Your task to perform on an android device: open app "Google Maps" Image 0: 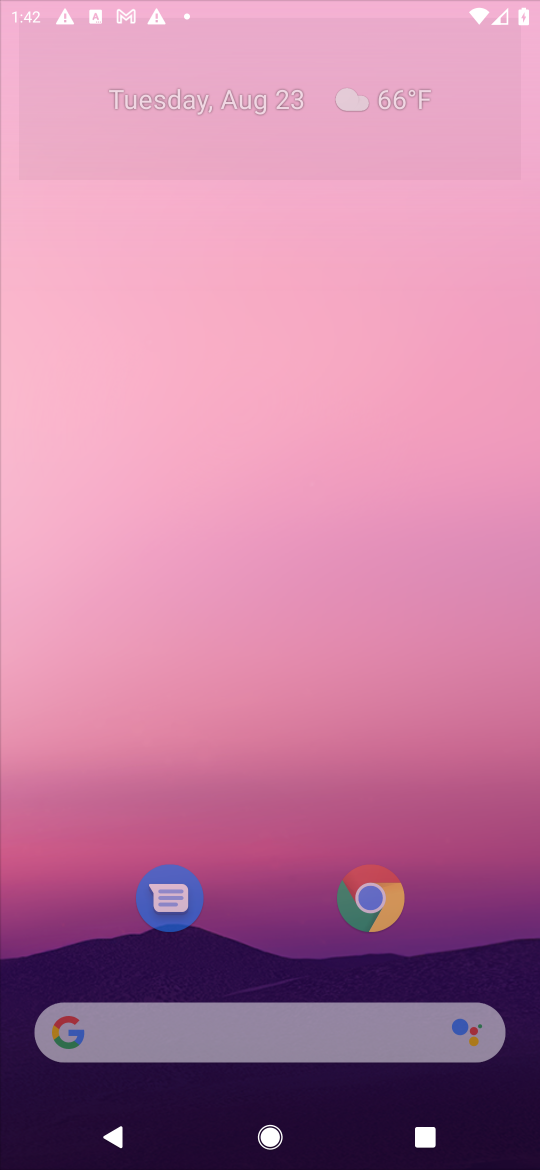
Step 0: press home button
Your task to perform on an android device: open app "Google Maps" Image 1: 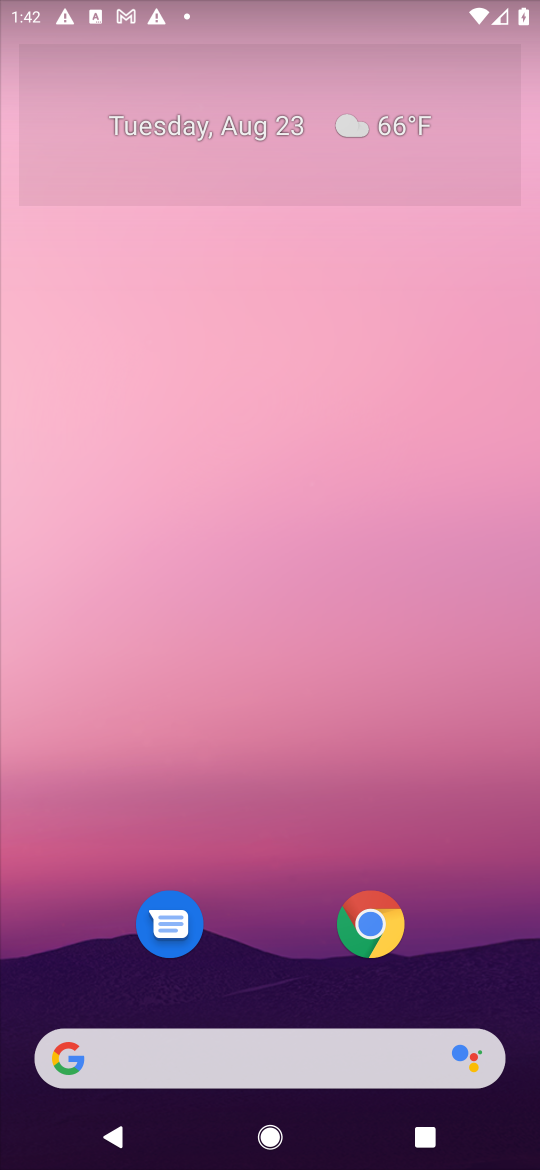
Step 1: drag from (469, 941) to (495, 78)
Your task to perform on an android device: open app "Google Maps" Image 2: 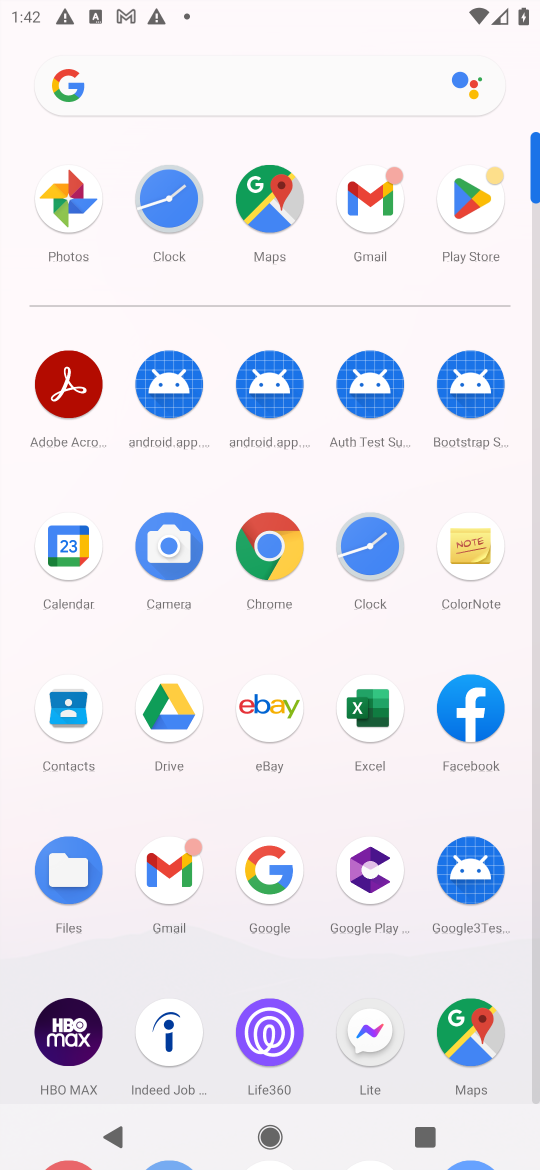
Step 2: click (461, 191)
Your task to perform on an android device: open app "Google Maps" Image 3: 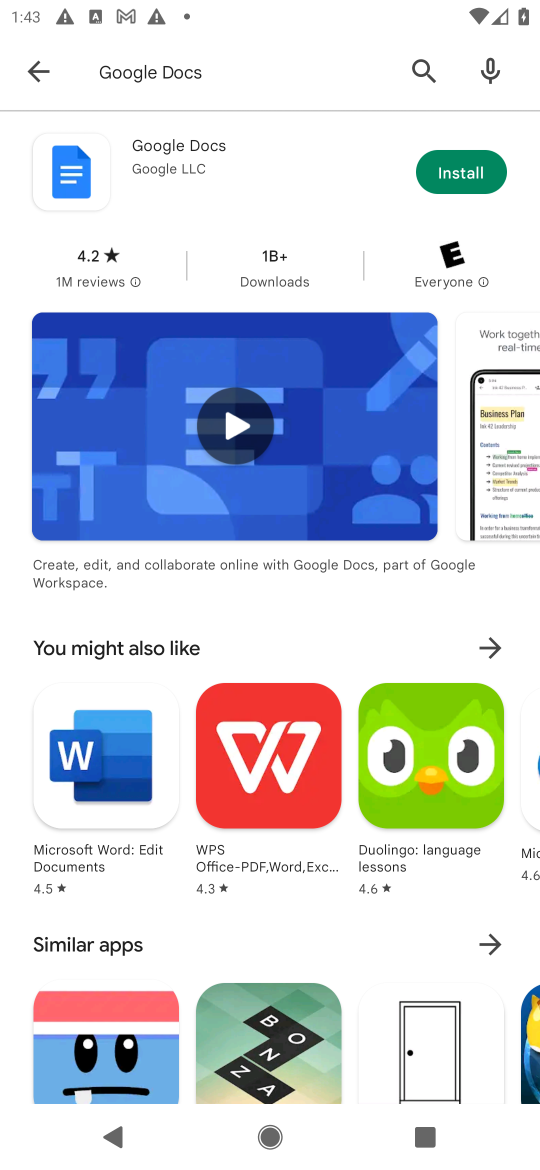
Step 3: press back button
Your task to perform on an android device: open app "Google Maps" Image 4: 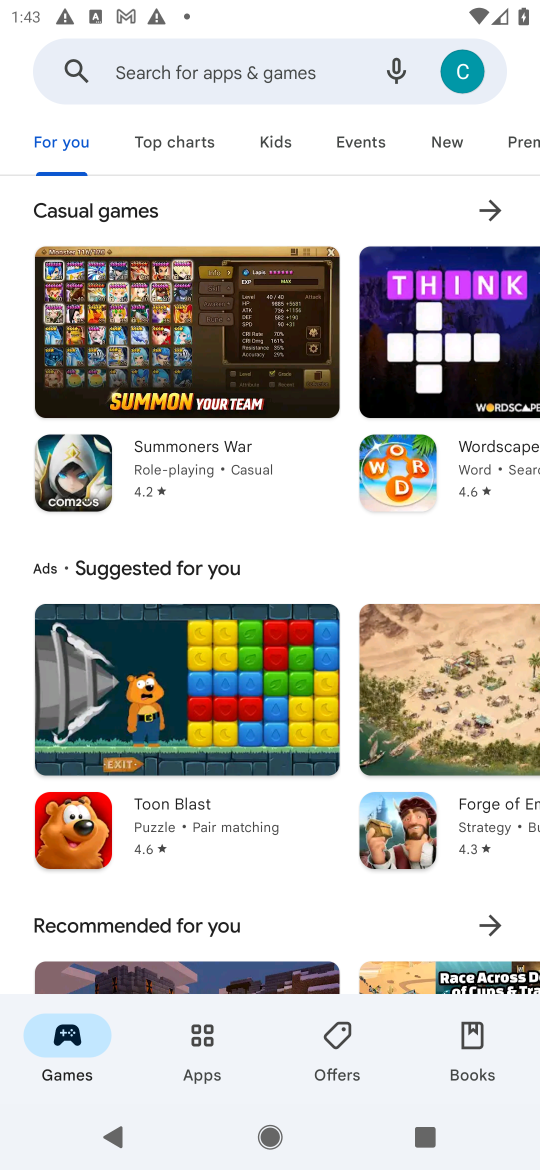
Step 4: click (270, 77)
Your task to perform on an android device: open app "Google Maps" Image 5: 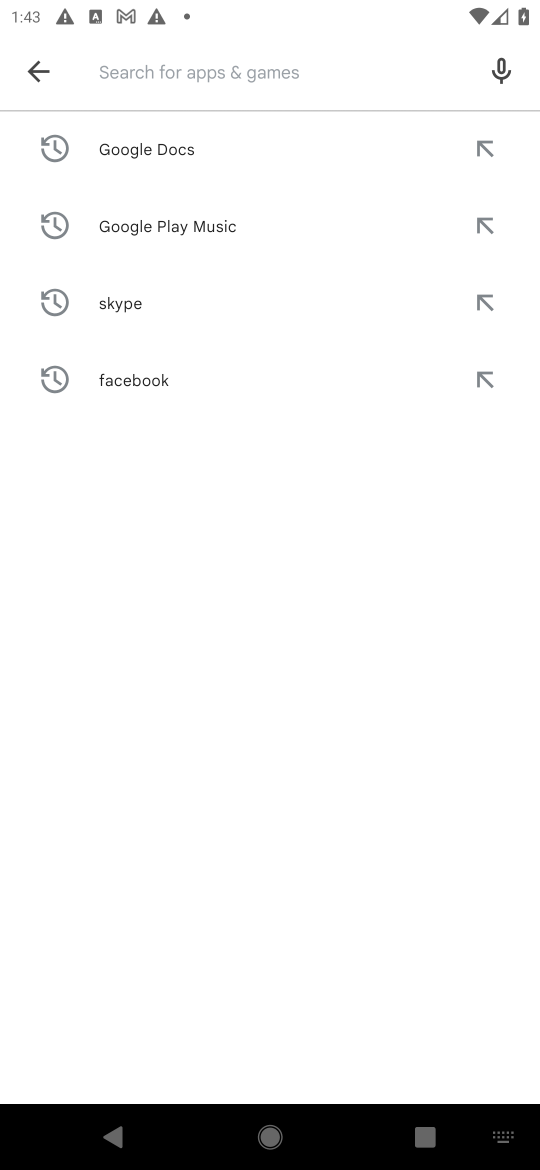
Step 5: press enter
Your task to perform on an android device: open app "Google Maps" Image 6: 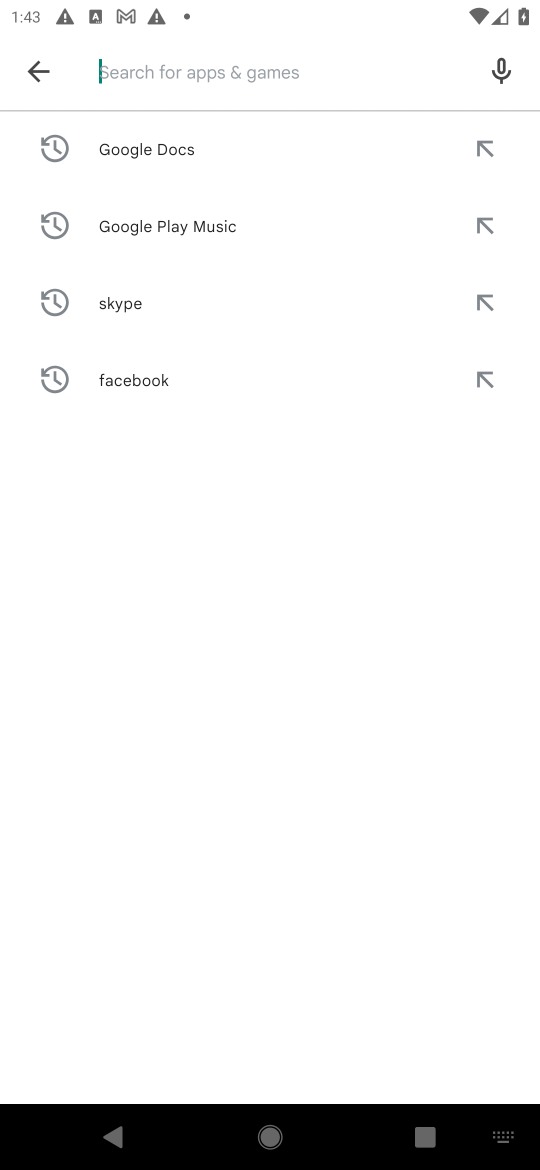
Step 6: type "Google Maps"
Your task to perform on an android device: open app "Google Maps" Image 7: 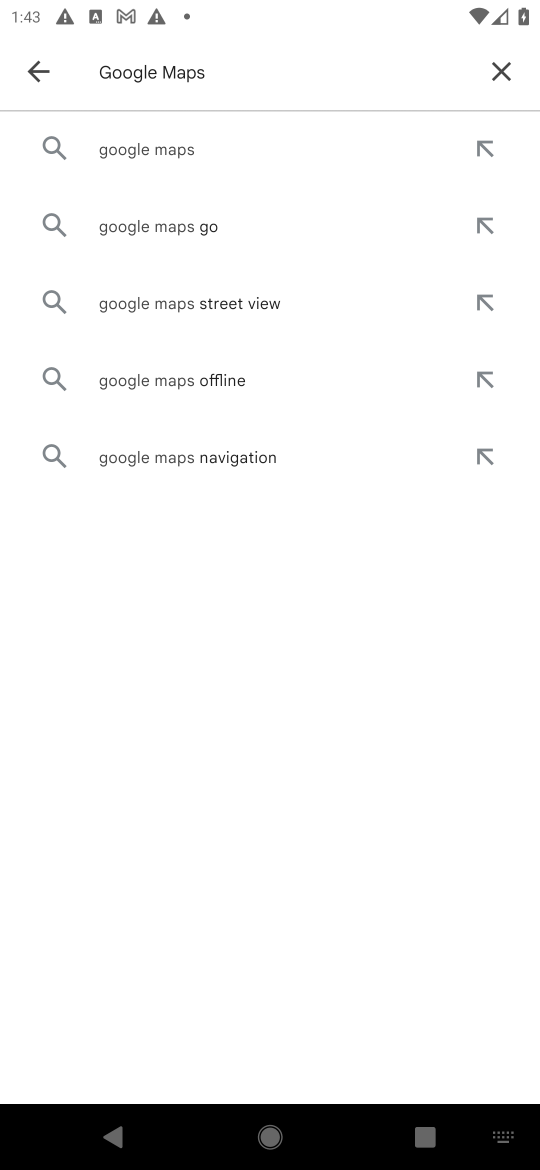
Step 7: click (191, 147)
Your task to perform on an android device: open app "Google Maps" Image 8: 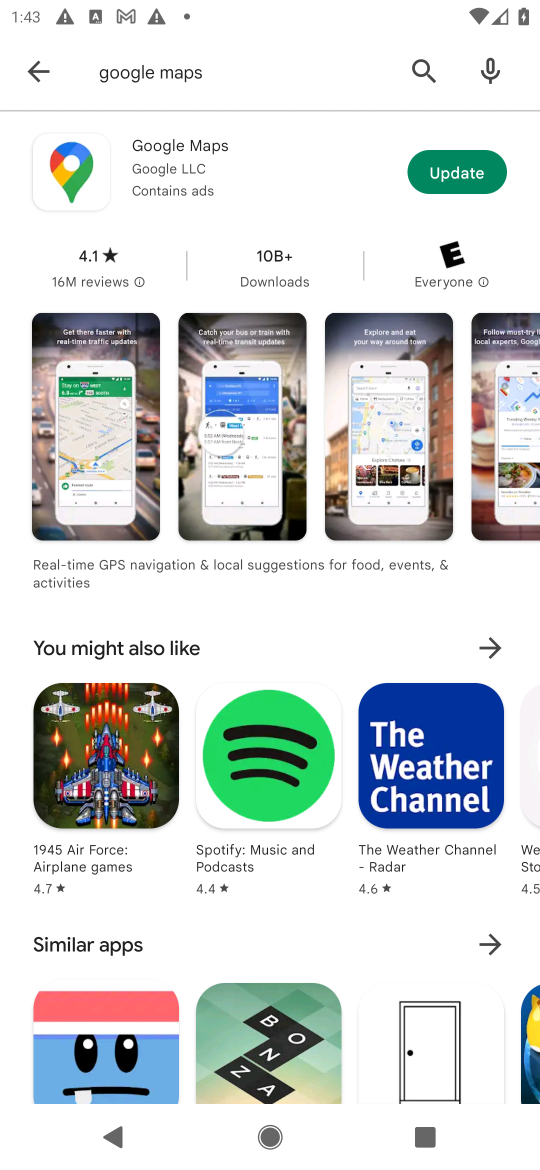
Step 8: click (461, 164)
Your task to perform on an android device: open app "Google Maps" Image 9: 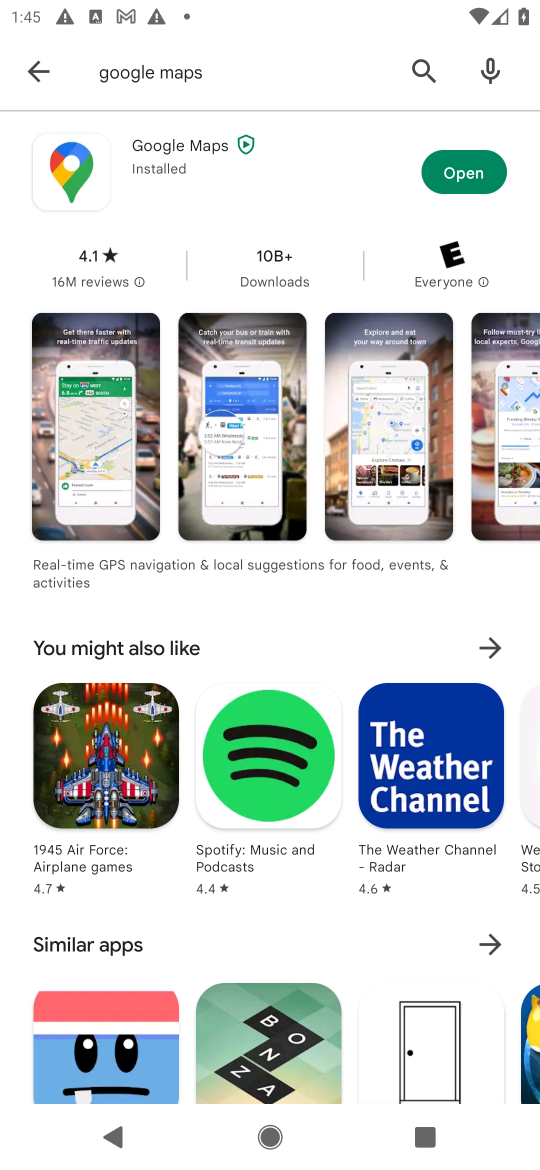
Step 9: click (477, 162)
Your task to perform on an android device: open app "Google Maps" Image 10: 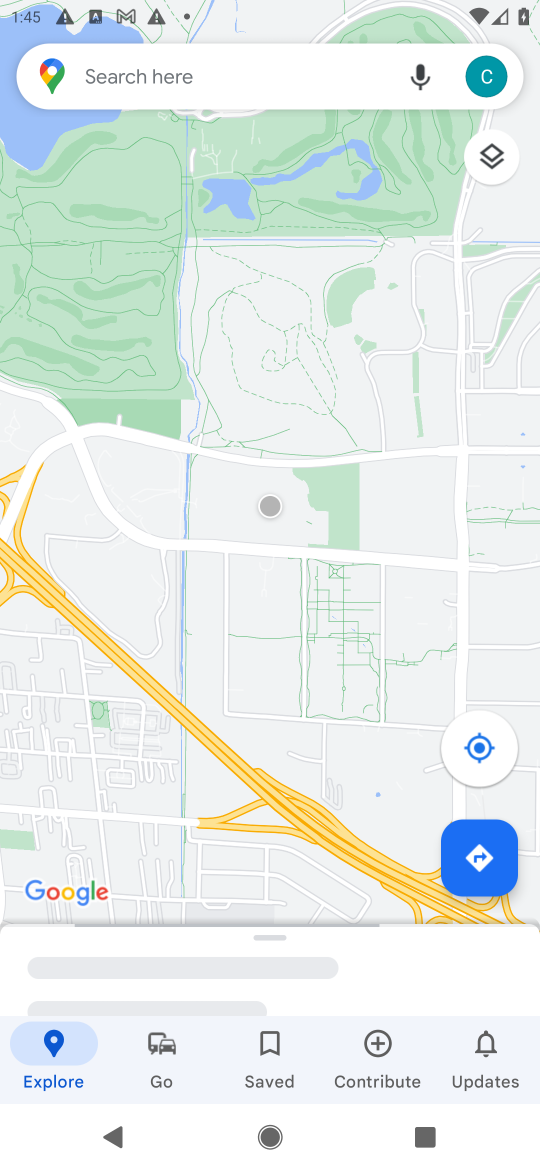
Step 10: task complete